Your task to perform on an android device: manage bookmarks in the chrome app Image 0: 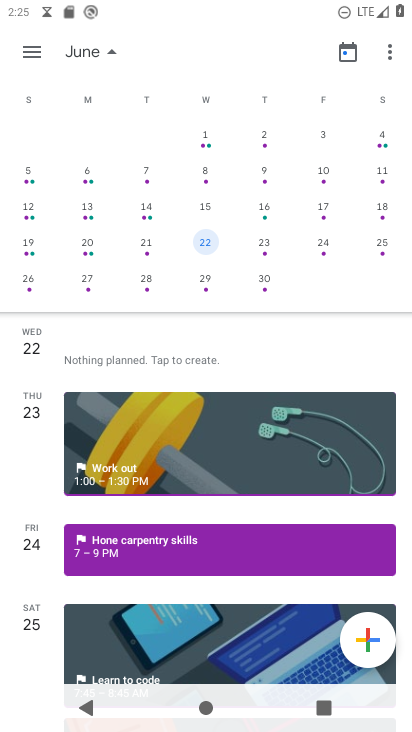
Step 0: press home button
Your task to perform on an android device: manage bookmarks in the chrome app Image 1: 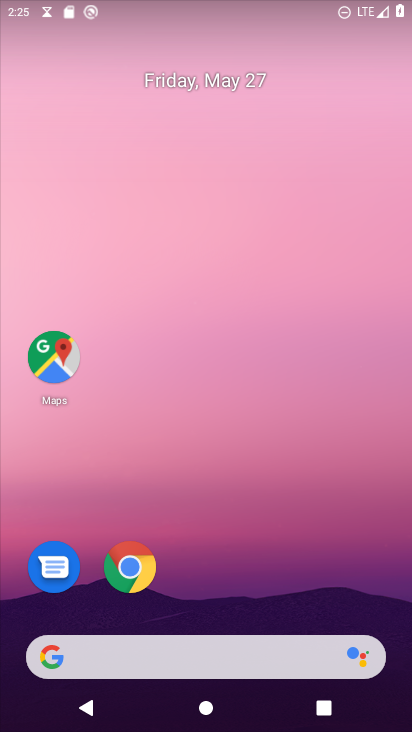
Step 1: drag from (221, 598) to (178, 132)
Your task to perform on an android device: manage bookmarks in the chrome app Image 2: 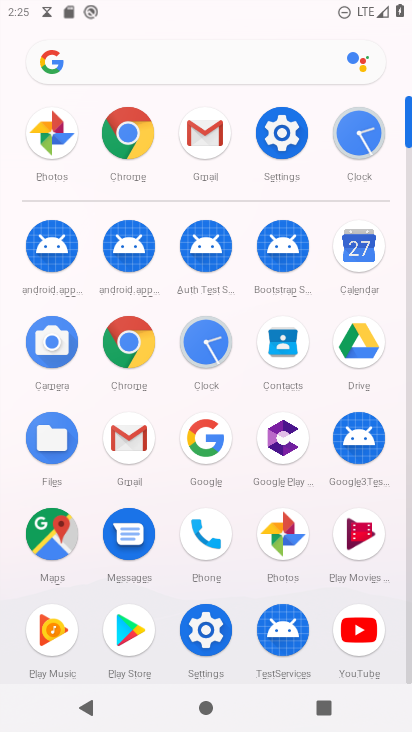
Step 2: click (127, 137)
Your task to perform on an android device: manage bookmarks in the chrome app Image 3: 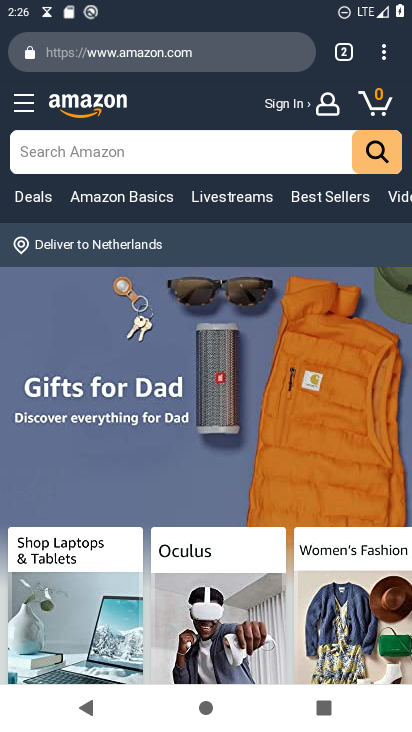
Step 3: click (385, 57)
Your task to perform on an android device: manage bookmarks in the chrome app Image 4: 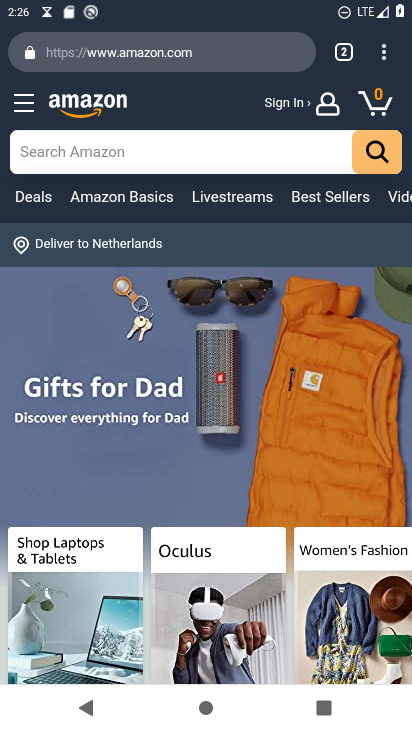
Step 4: click (388, 55)
Your task to perform on an android device: manage bookmarks in the chrome app Image 5: 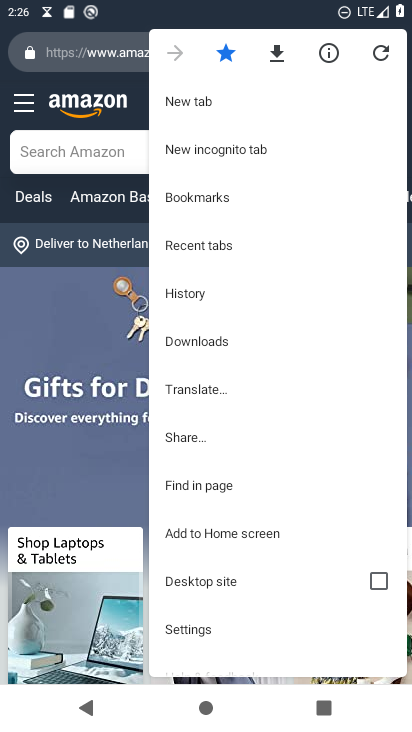
Step 5: click (274, 205)
Your task to perform on an android device: manage bookmarks in the chrome app Image 6: 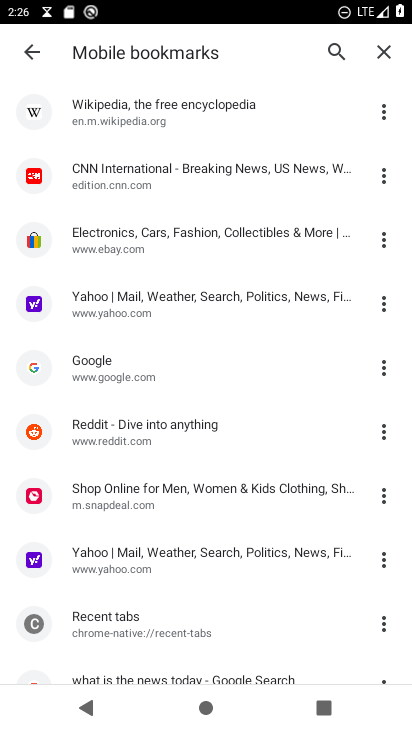
Step 6: click (248, 242)
Your task to perform on an android device: manage bookmarks in the chrome app Image 7: 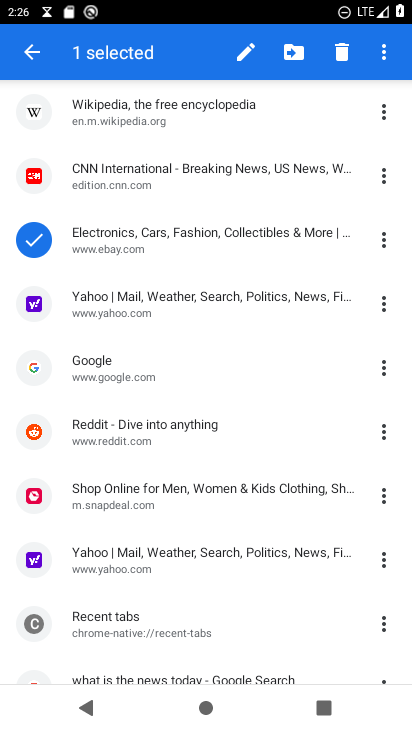
Step 7: click (296, 46)
Your task to perform on an android device: manage bookmarks in the chrome app Image 8: 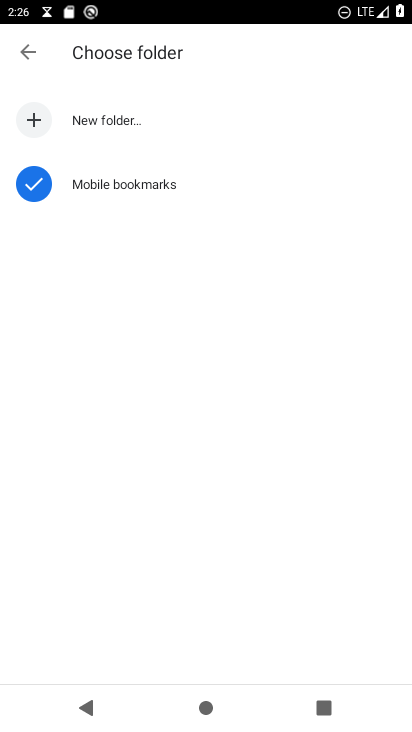
Step 8: click (164, 188)
Your task to perform on an android device: manage bookmarks in the chrome app Image 9: 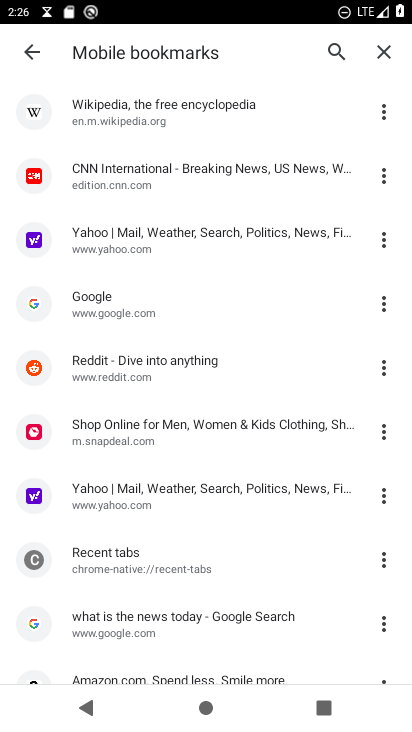
Step 9: task complete